Your task to perform on an android device: manage bookmarks in the chrome app Image 0: 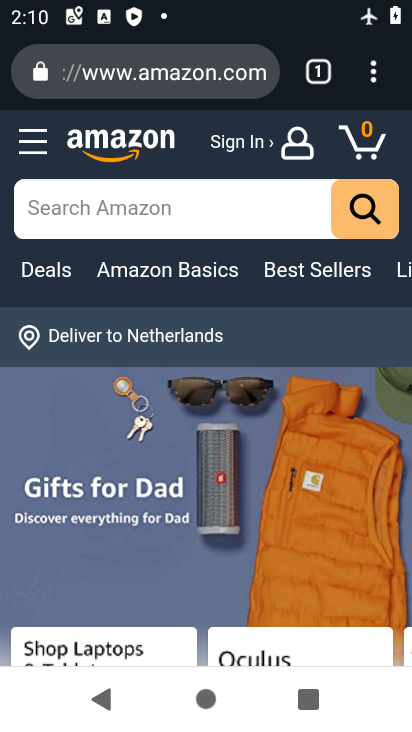
Step 0: drag from (207, 425) to (216, 350)
Your task to perform on an android device: manage bookmarks in the chrome app Image 1: 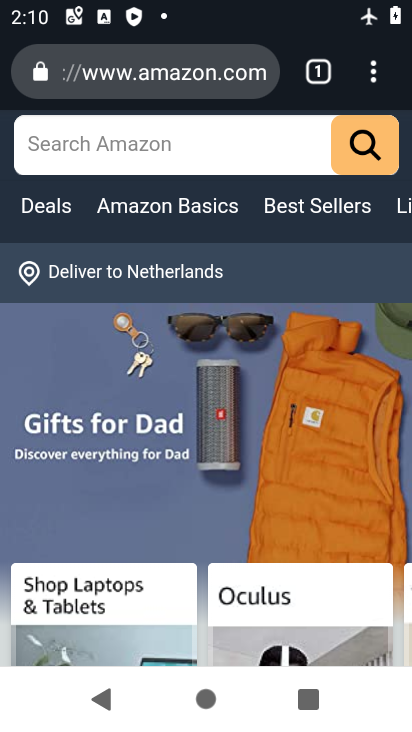
Step 1: press home button
Your task to perform on an android device: manage bookmarks in the chrome app Image 2: 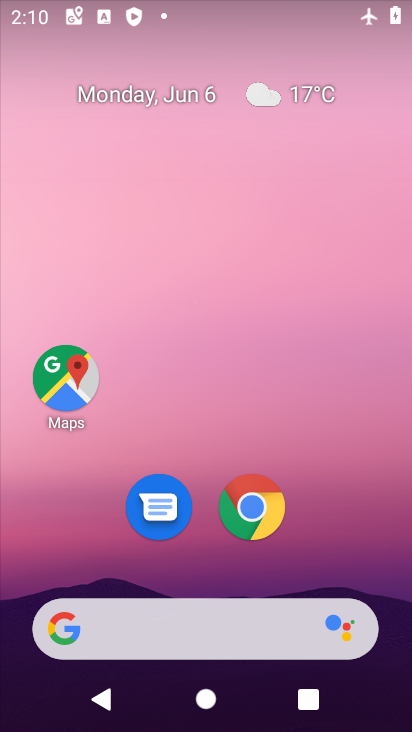
Step 2: click (250, 511)
Your task to perform on an android device: manage bookmarks in the chrome app Image 3: 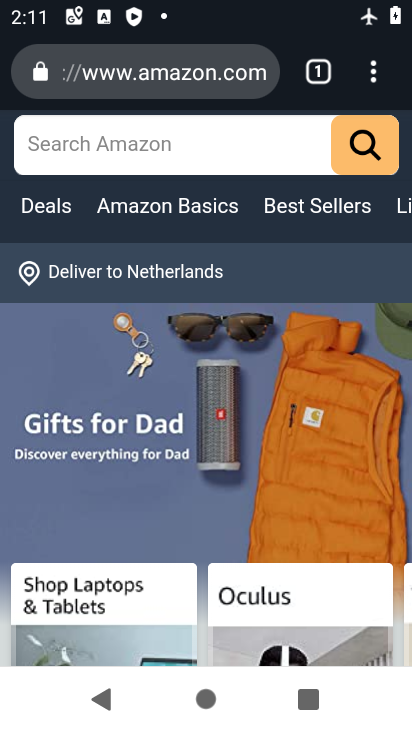
Step 3: click (374, 77)
Your task to perform on an android device: manage bookmarks in the chrome app Image 4: 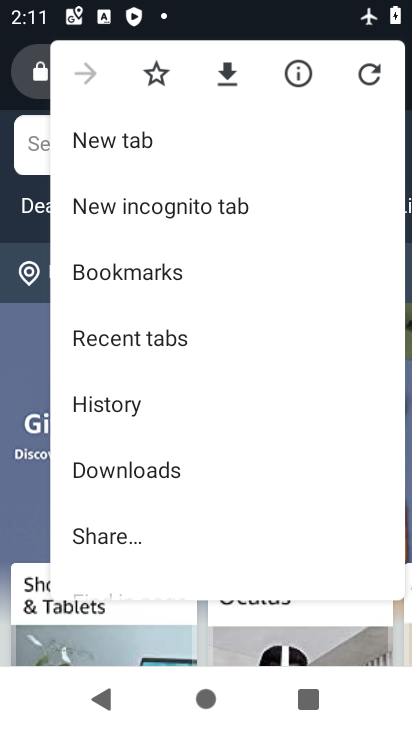
Step 4: click (195, 266)
Your task to perform on an android device: manage bookmarks in the chrome app Image 5: 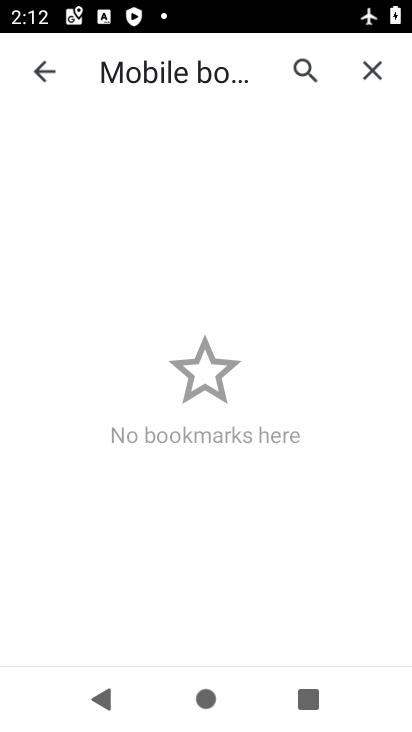
Step 5: task complete